Your task to perform on an android device: Open privacy settings Image 0: 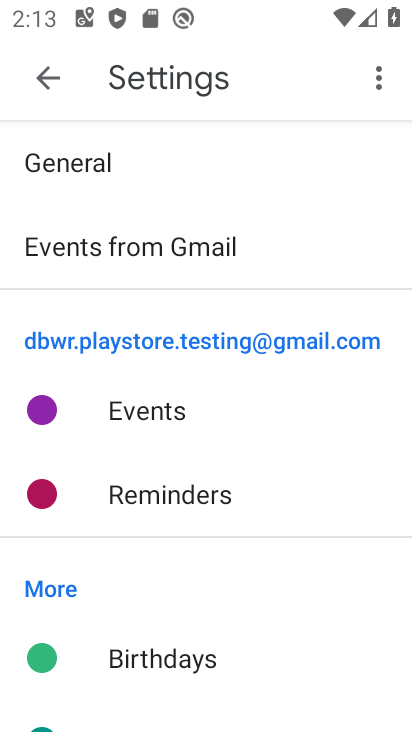
Step 0: press home button
Your task to perform on an android device: Open privacy settings Image 1: 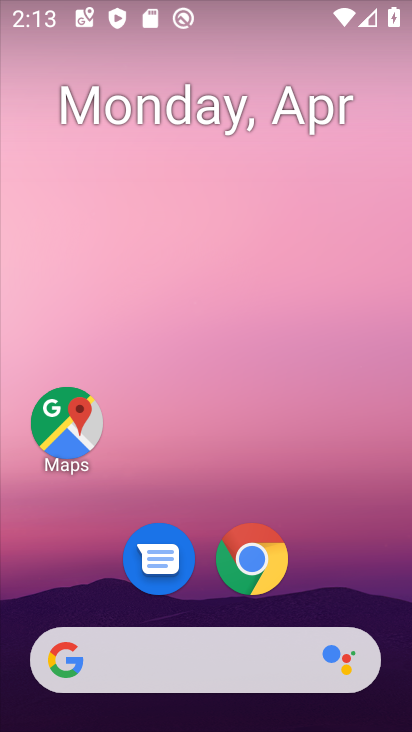
Step 1: click (276, 557)
Your task to perform on an android device: Open privacy settings Image 2: 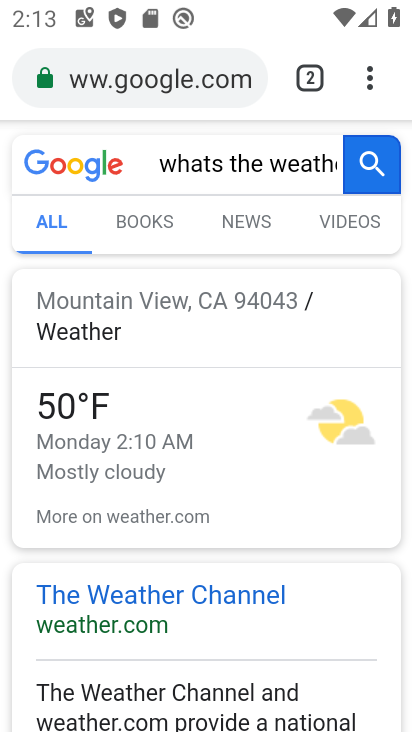
Step 2: click (367, 77)
Your task to perform on an android device: Open privacy settings Image 3: 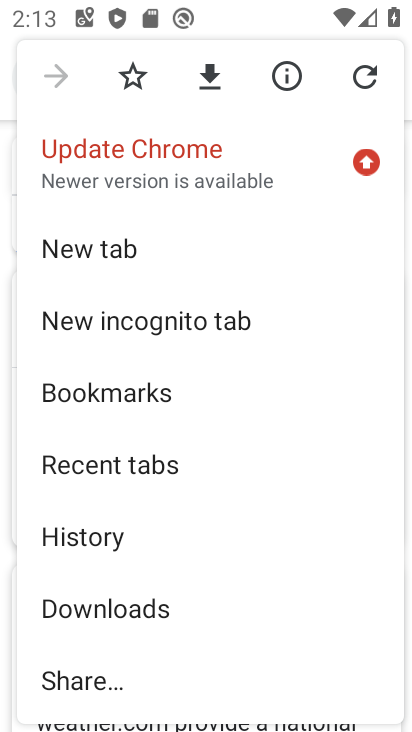
Step 3: drag from (144, 673) to (151, 154)
Your task to perform on an android device: Open privacy settings Image 4: 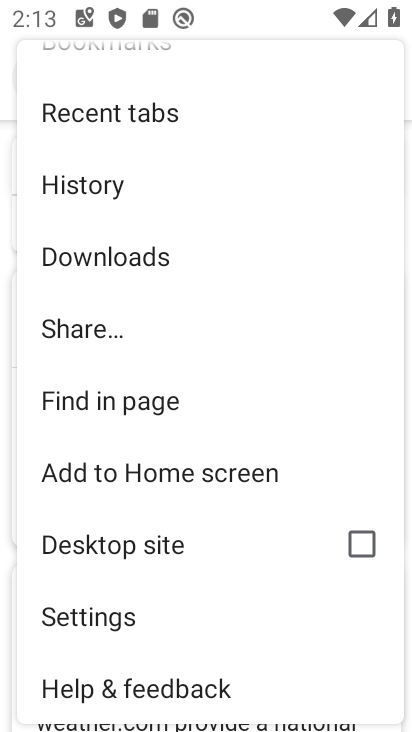
Step 4: click (76, 612)
Your task to perform on an android device: Open privacy settings Image 5: 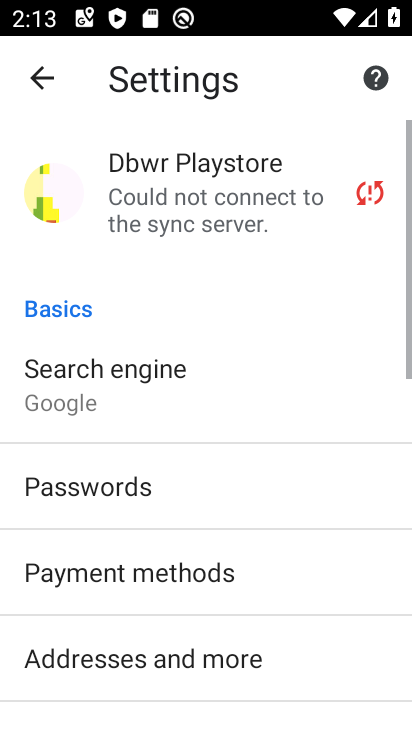
Step 5: drag from (259, 642) to (214, 221)
Your task to perform on an android device: Open privacy settings Image 6: 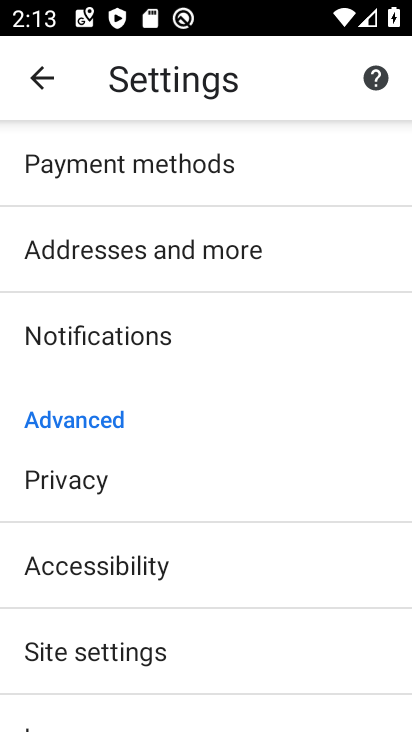
Step 6: click (75, 478)
Your task to perform on an android device: Open privacy settings Image 7: 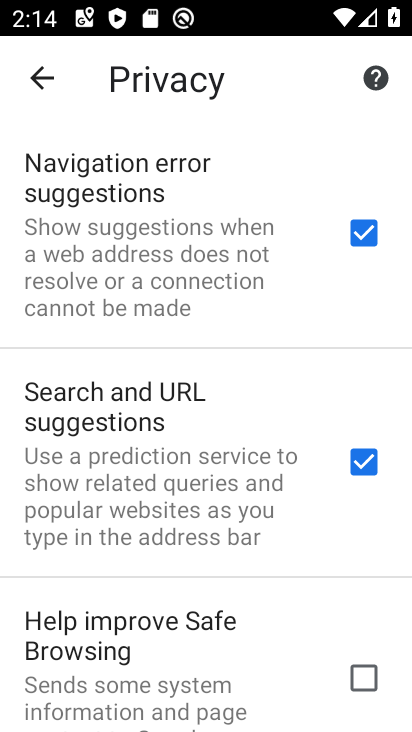
Step 7: task complete